Your task to perform on an android device: toggle notifications settings in the gmail app Image 0: 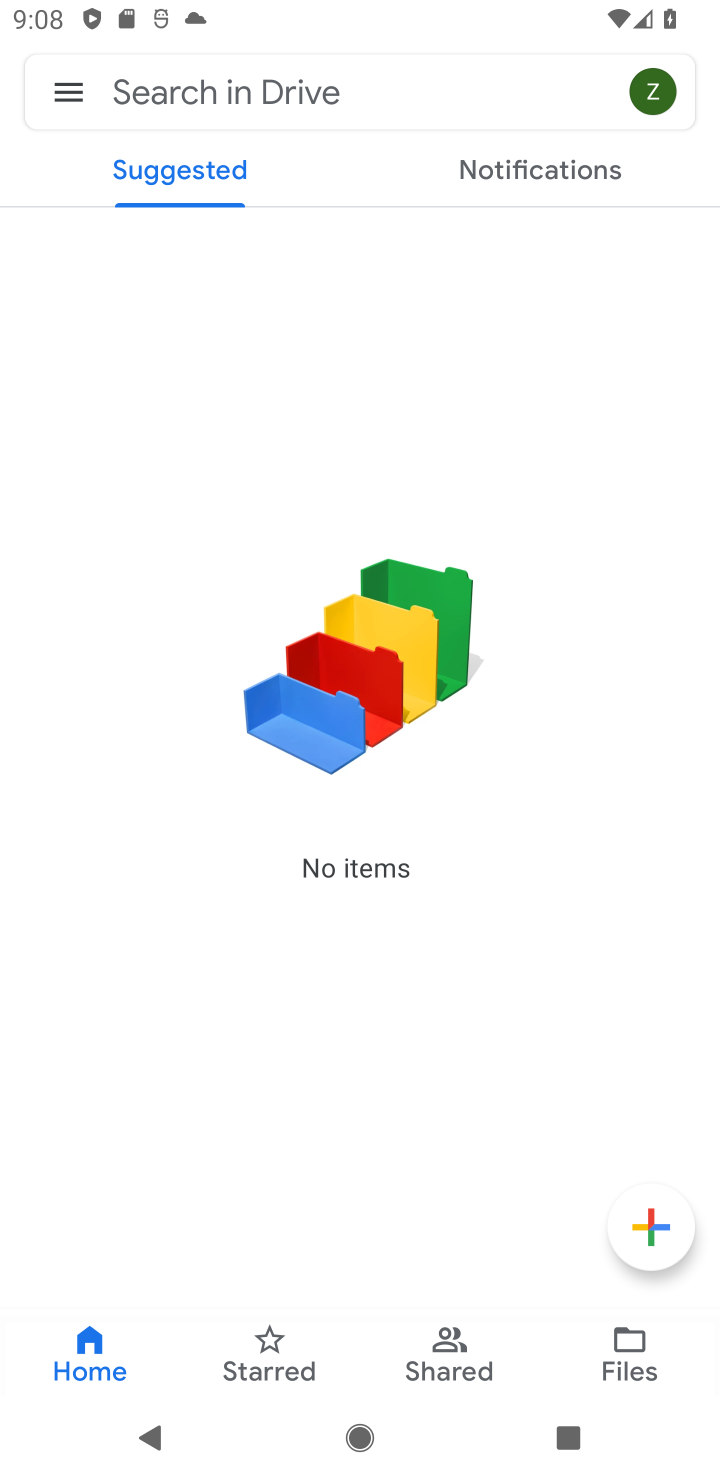
Step 0: press home button
Your task to perform on an android device: toggle notifications settings in the gmail app Image 1: 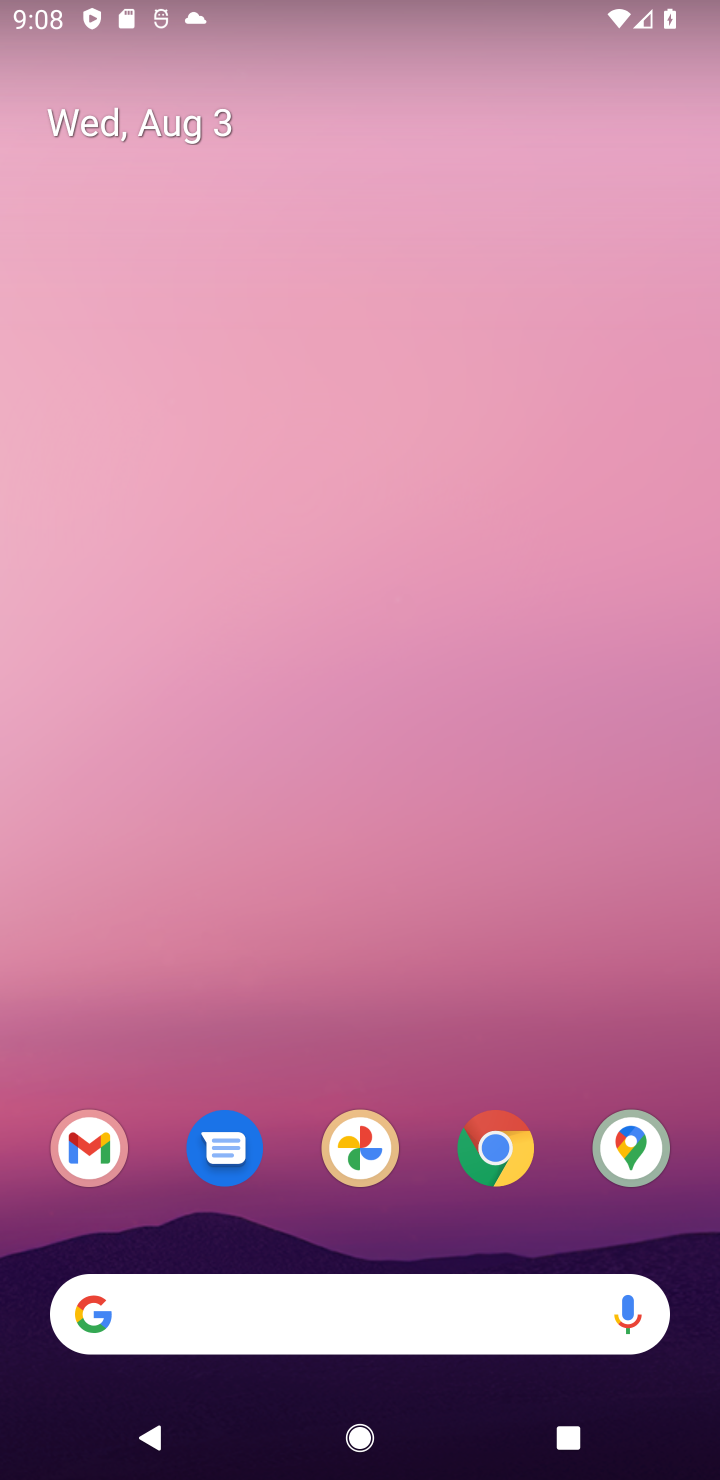
Step 1: drag from (417, 968) to (443, 391)
Your task to perform on an android device: toggle notifications settings in the gmail app Image 2: 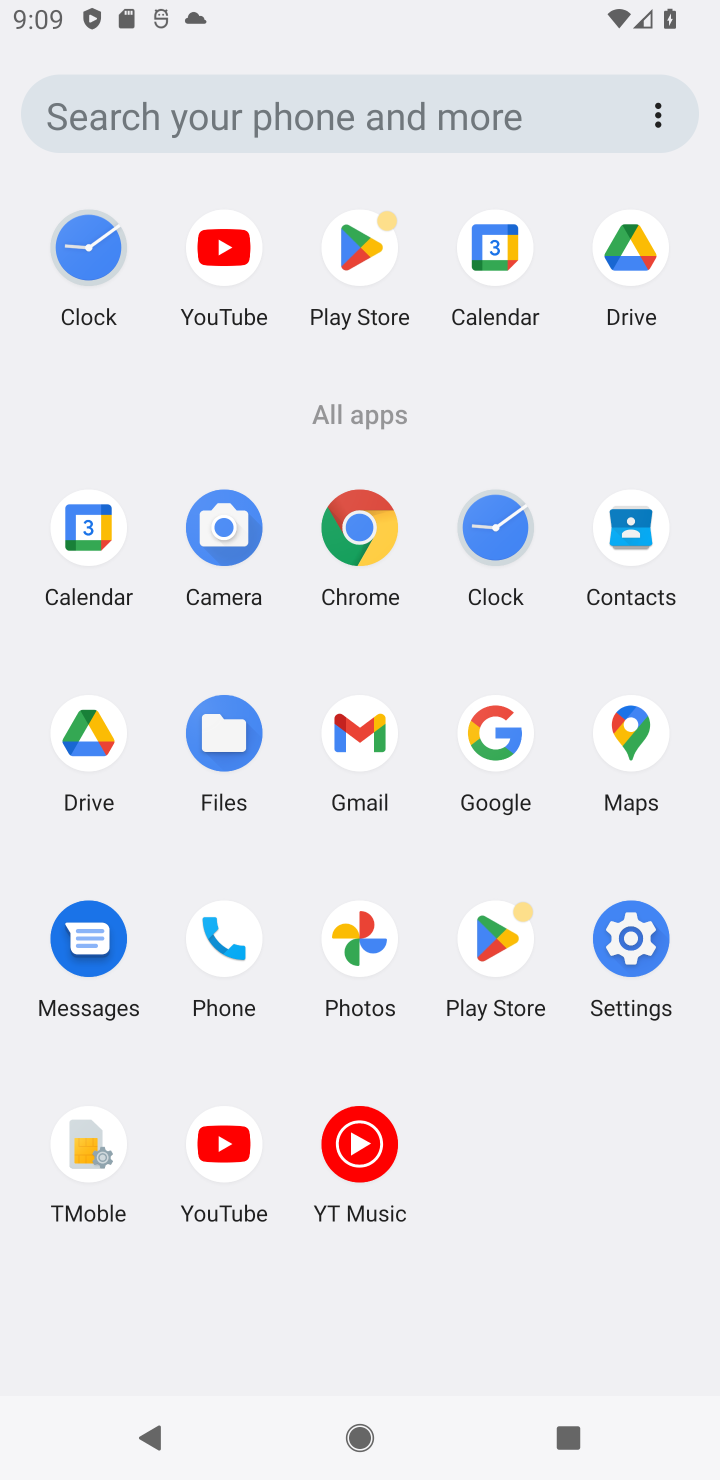
Step 2: click (361, 730)
Your task to perform on an android device: toggle notifications settings in the gmail app Image 3: 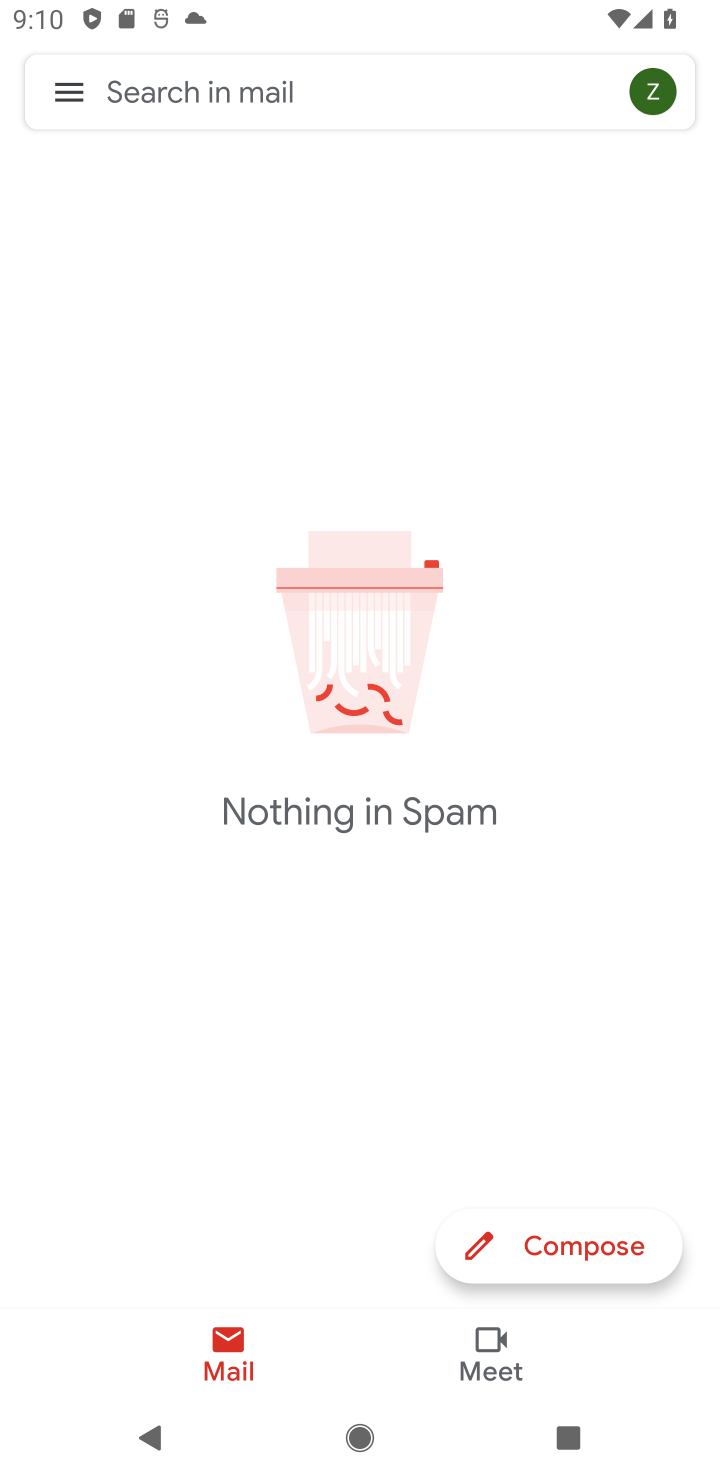
Step 3: task complete